Your task to perform on an android device: What's the weather? Image 0: 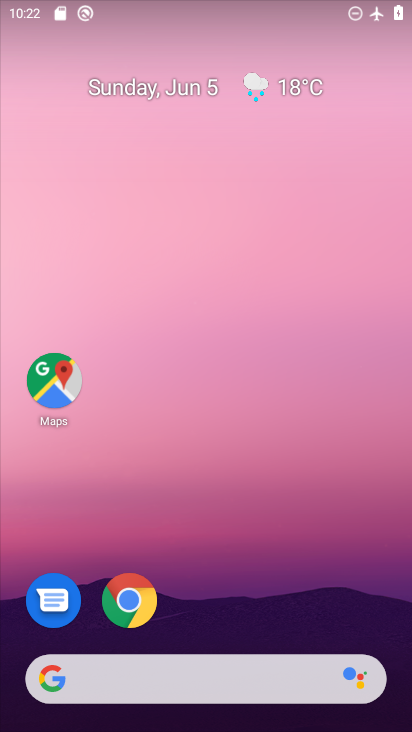
Step 0: click (251, 85)
Your task to perform on an android device: What's the weather? Image 1: 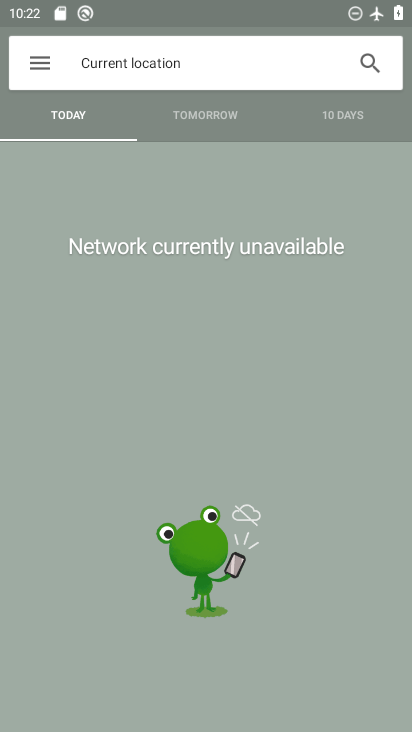
Step 1: drag from (336, 8) to (268, 561)
Your task to perform on an android device: What's the weather? Image 2: 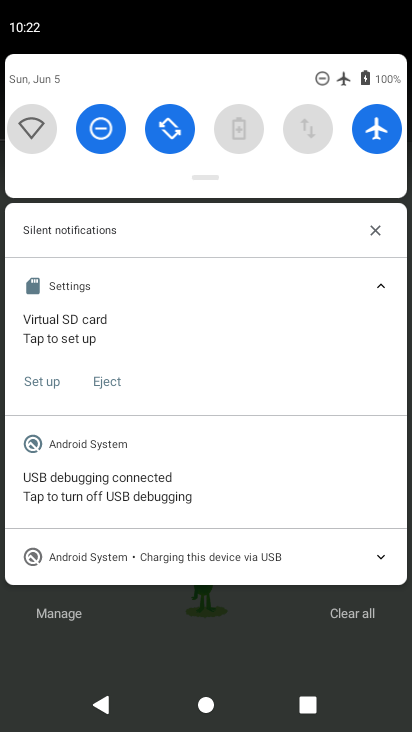
Step 2: click (379, 132)
Your task to perform on an android device: What's the weather? Image 3: 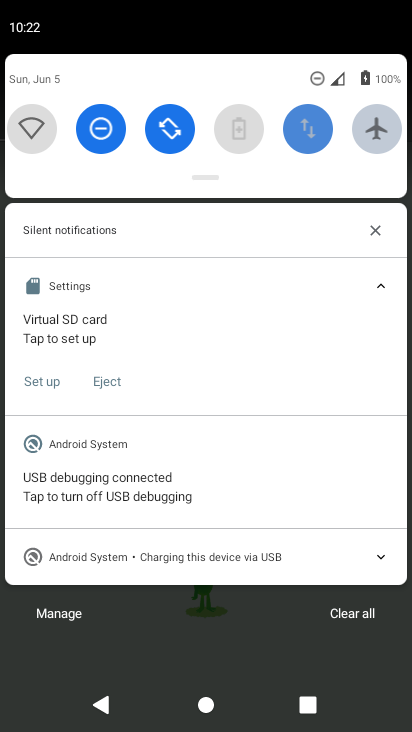
Step 3: click (179, 632)
Your task to perform on an android device: What's the weather? Image 4: 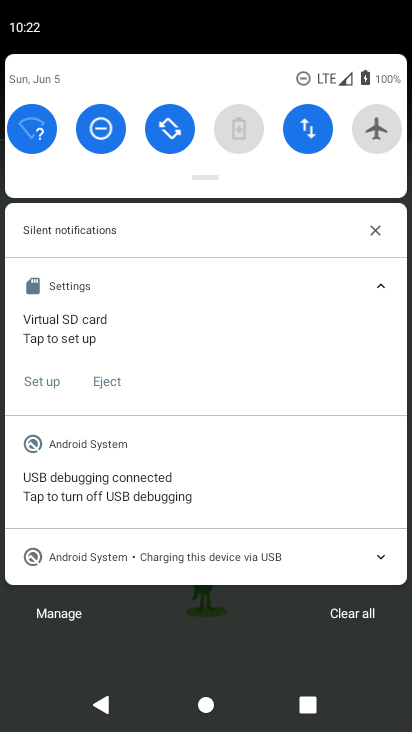
Step 4: task complete